Your task to perform on an android device: Open network settings Image 0: 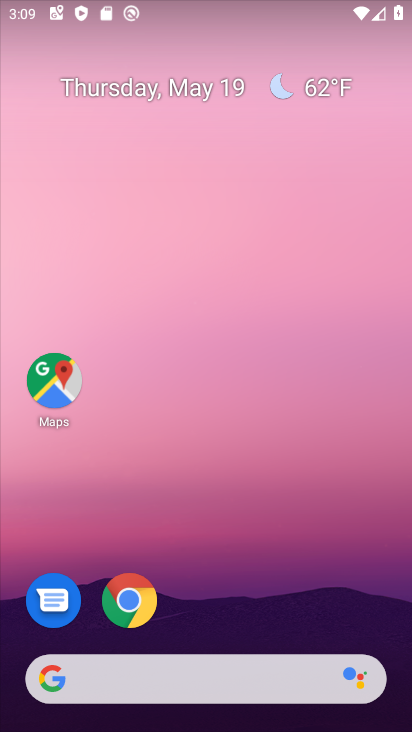
Step 0: drag from (47, 566) to (271, 140)
Your task to perform on an android device: Open network settings Image 1: 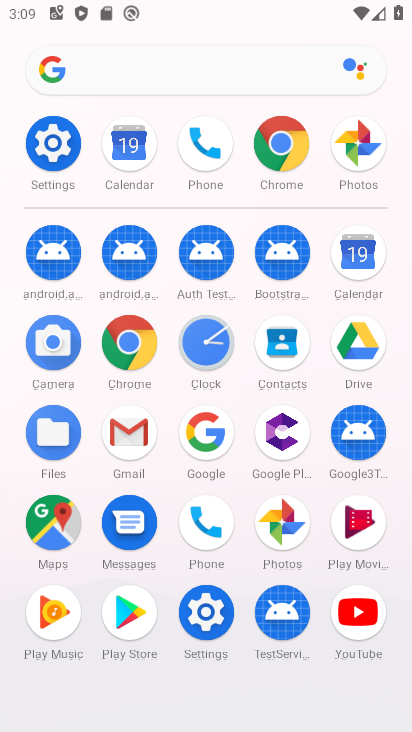
Step 1: click (71, 138)
Your task to perform on an android device: Open network settings Image 2: 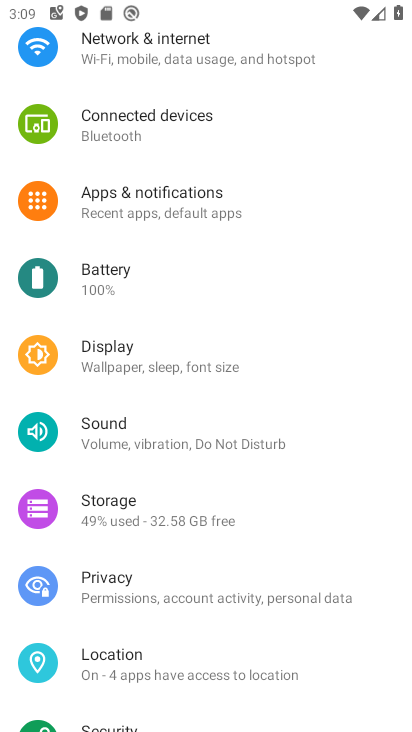
Step 2: click (238, 54)
Your task to perform on an android device: Open network settings Image 3: 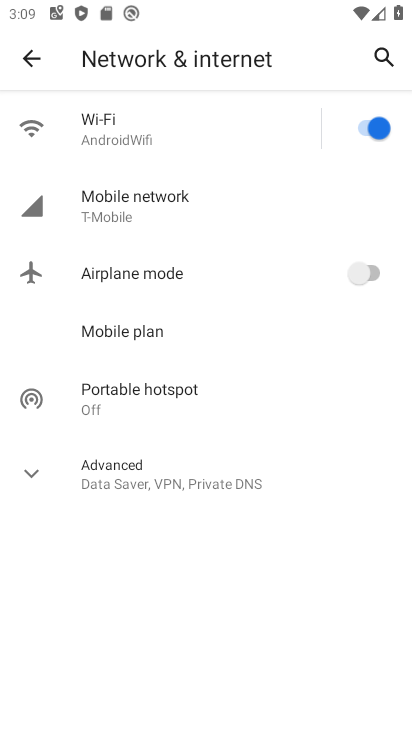
Step 3: click (158, 205)
Your task to perform on an android device: Open network settings Image 4: 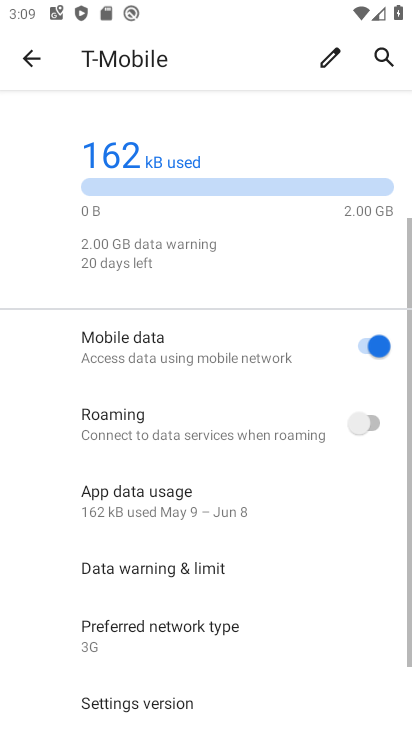
Step 4: task complete